Your task to perform on an android device: Set the phone to "Do not disturb". Image 0: 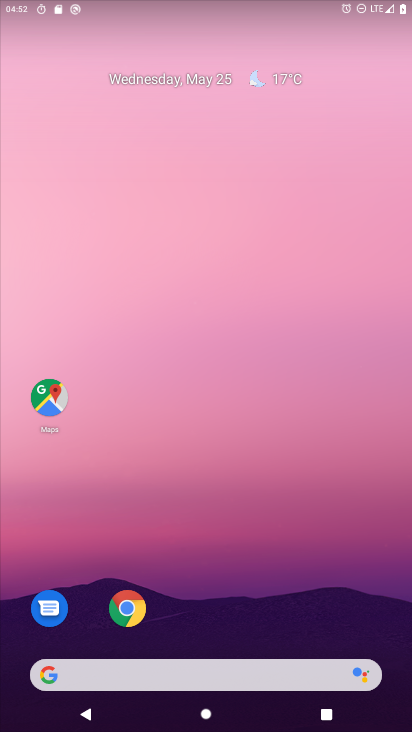
Step 0: drag from (222, 1) to (294, 449)
Your task to perform on an android device: Set the phone to "Do not disturb". Image 1: 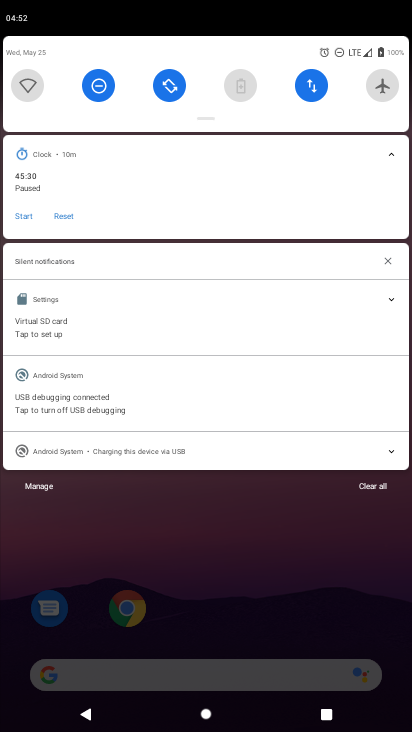
Step 1: task complete